Your task to perform on an android device: What's the weather? Image 0: 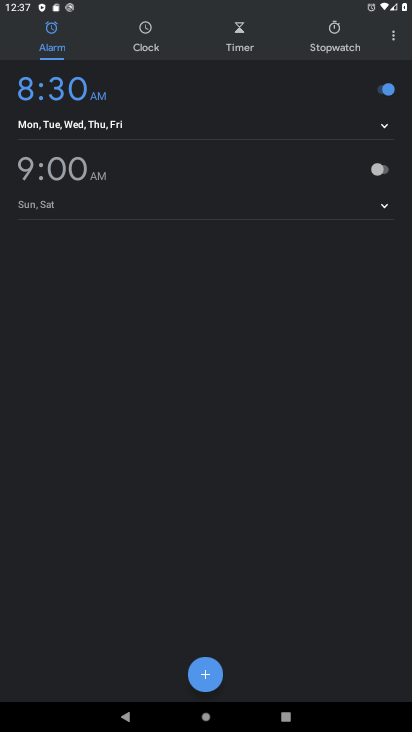
Step 0: press back button
Your task to perform on an android device: What's the weather? Image 1: 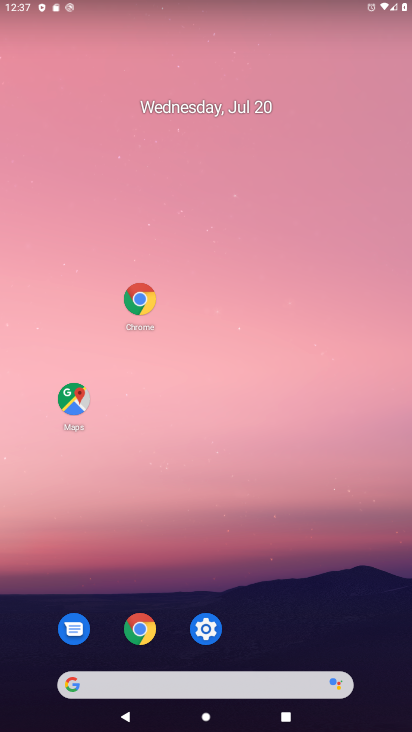
Step 1: drag from (278, 654) to (207, 210)
Your task to perform on an android device: What's the weather? Image 2: 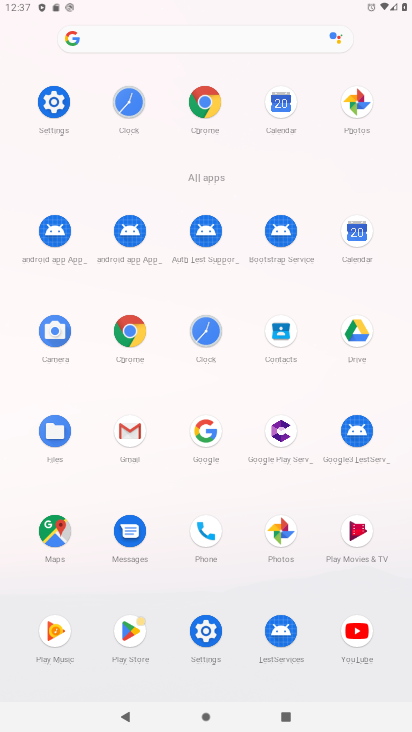
Step 2: click (349, 234)
Your task to perform on an android device: What's the weather? Image 3: 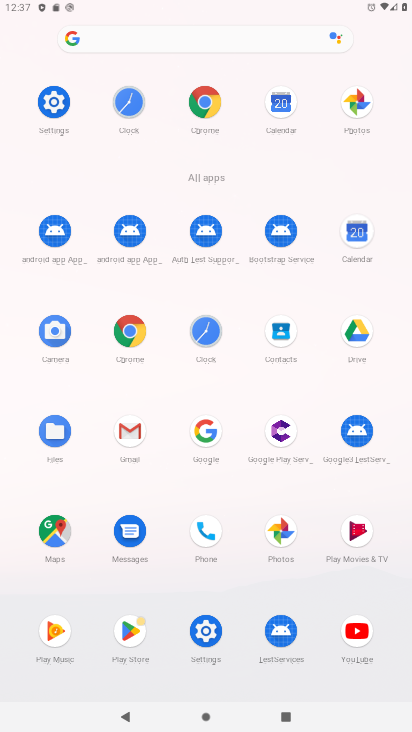
Step 3: click (351, 235)
Your task to perform on an android device: What's the weather? Image 4: 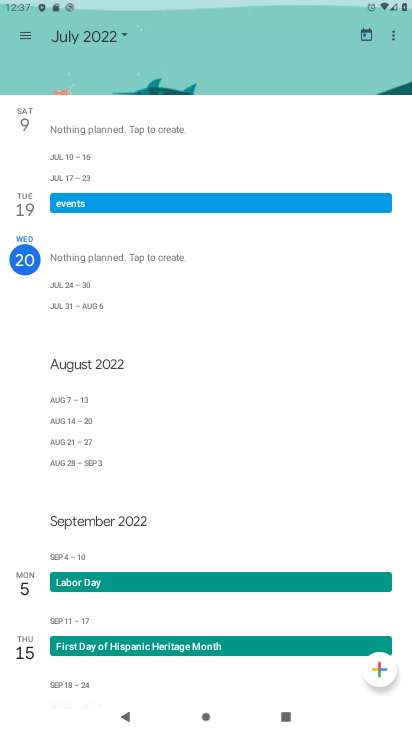
Step 4: click (353, 237)
Your task to perform on an android device: What's the weather? Image 5: 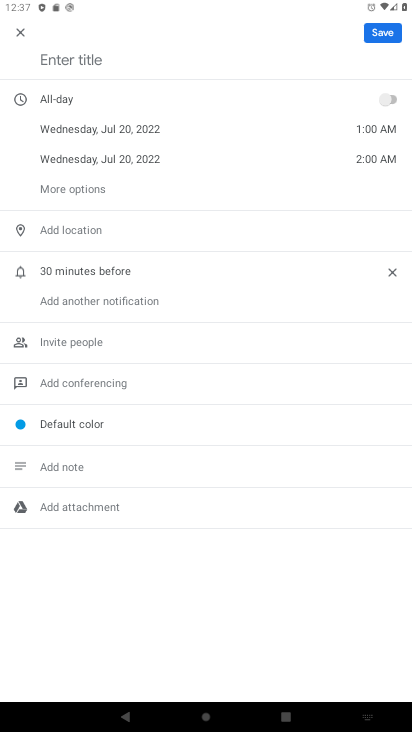
Step 5: click (19, 26)
Your task to perform on an android device: What's the weather? Image 6: 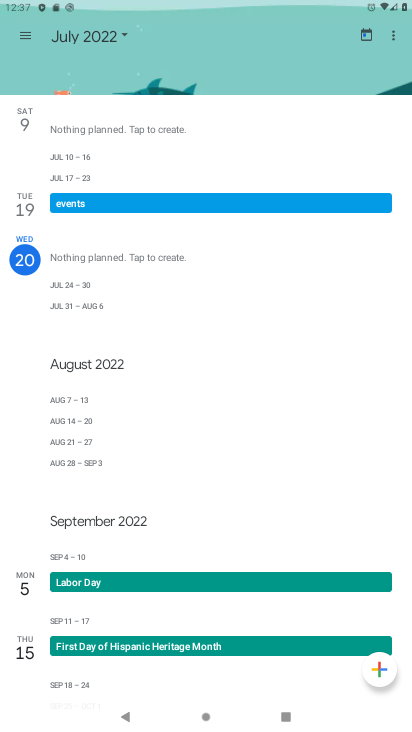
Step 6: press back button
Your task to perform on an android device: What's the weather? Image 7: 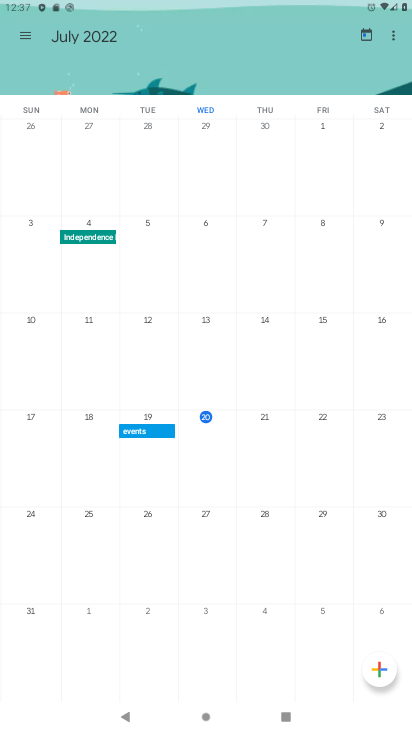
Step 7: press home button
Your task to perform on an android device: What's the weather? Image 8: 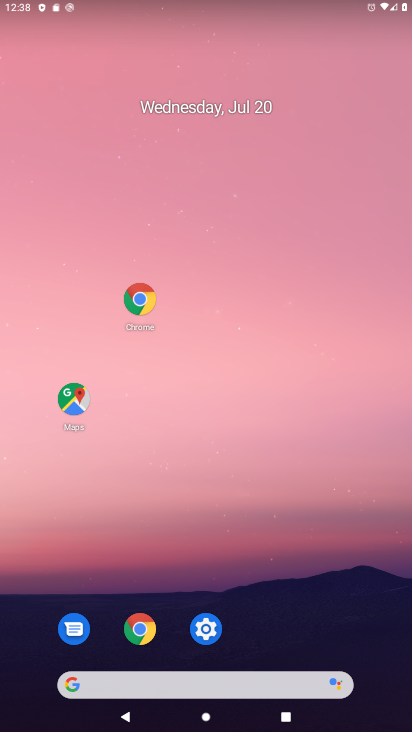
Step 8: drag from (188, 360) to (181, 56)
Your task to perform on an android device: What's the weather? Image 9: 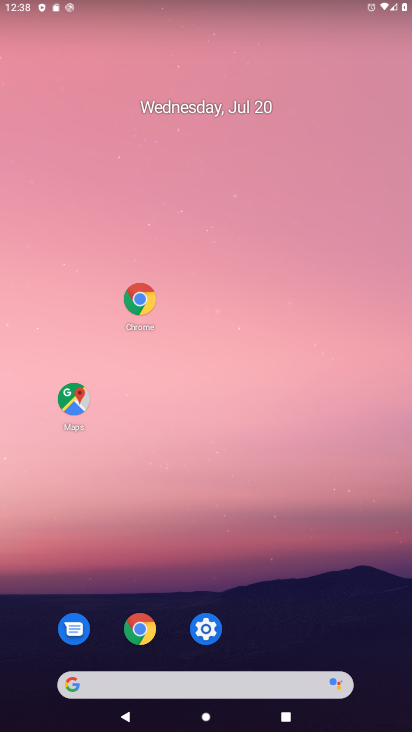
Step 9: drag from (200, 524) to (182, 87)
Your task to perform on an android device: What's the weather? Image 10: 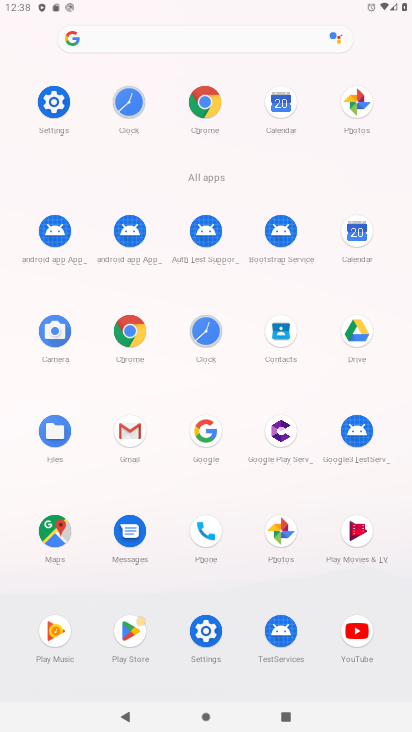
Step 10: click (196, 97)
Your task to perform on an android device: What's the weather? Image 11: 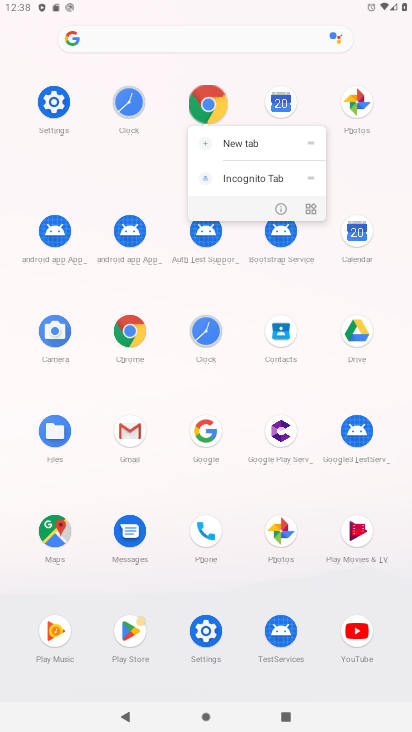
Step 11: click (207, 108)
Your task to perform on an android device: What's the weather? Image 12: 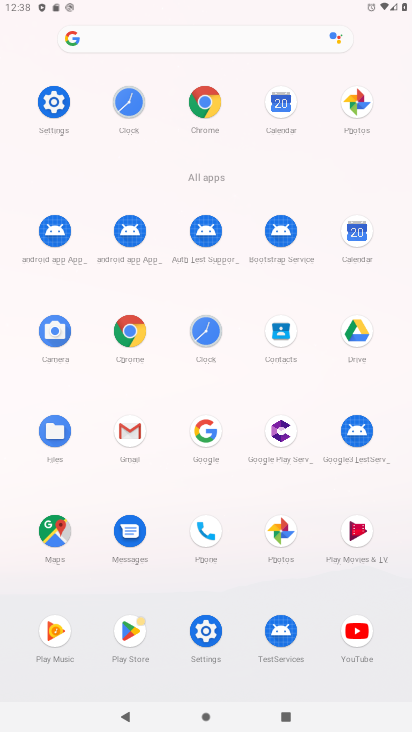
Step 12: click (203, 99)
Your task to perform on an android device: What's the weather? Image 13: 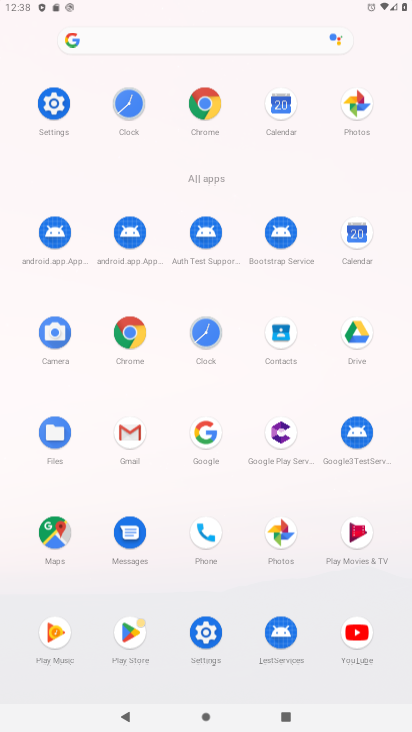
Step 13: click (204, 107)
Your task to perform on an android device: What's the weather? Image 14: 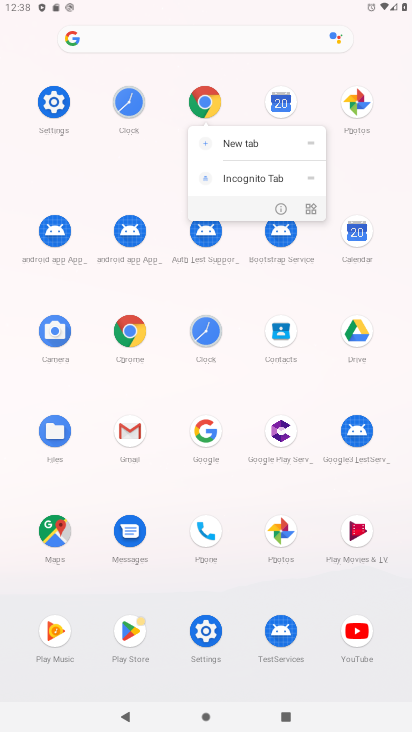
Step 14: click (196, 96)
Your task to perform on an android device: What's the weather? Image 15: 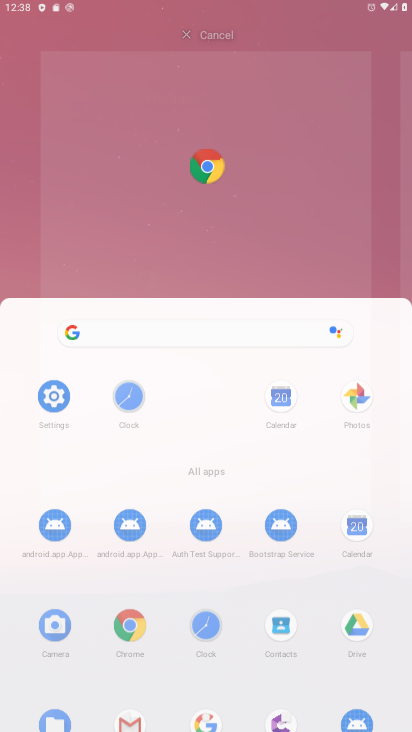
Step 15: click (214, 105)
Your task to perform on an android device: What's the weather? Image 16: 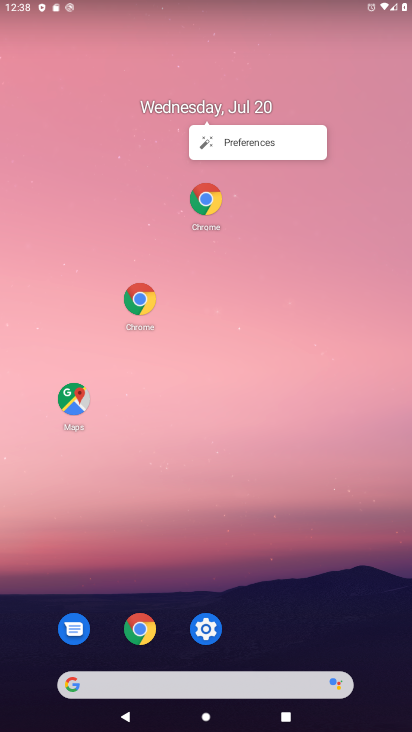
Step 16: drag from (213, 558) to (230, 93)
Your task to perform on an android device: What's the weather? Image 17: 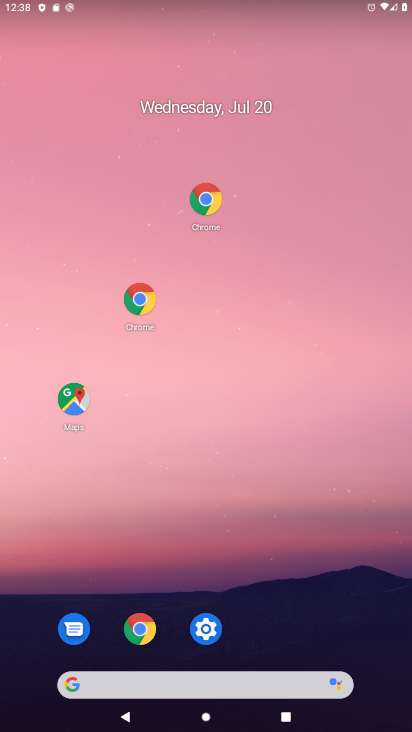
Step 17: drag from (230, 385) to (213, 89)
Your task to perform on an android device: What's the weather? Image 18: 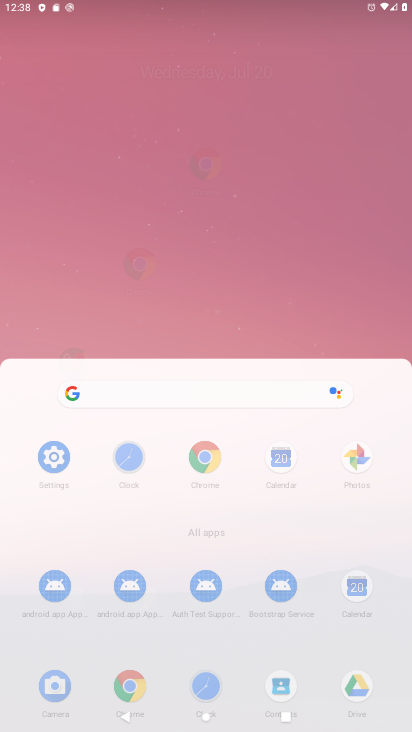
Step 18: drag from (231, 398) to (238, 72)
Your task to perform on an android device: What's the weather? Image 19: 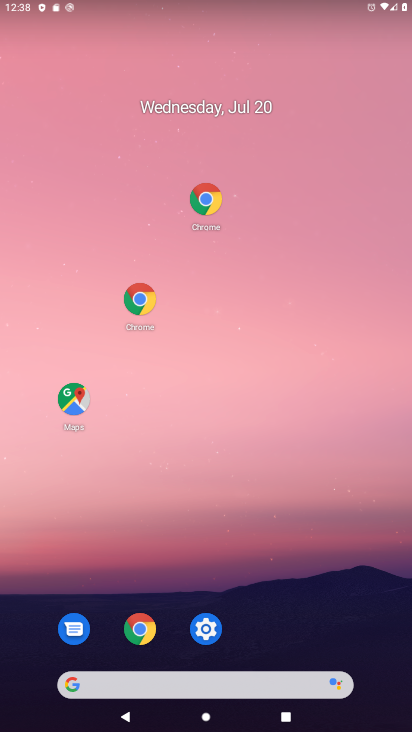
Step 19: drag from (214, 161) to (230, 38)
Your task to perform on an android device: What's the weather? Image 20: 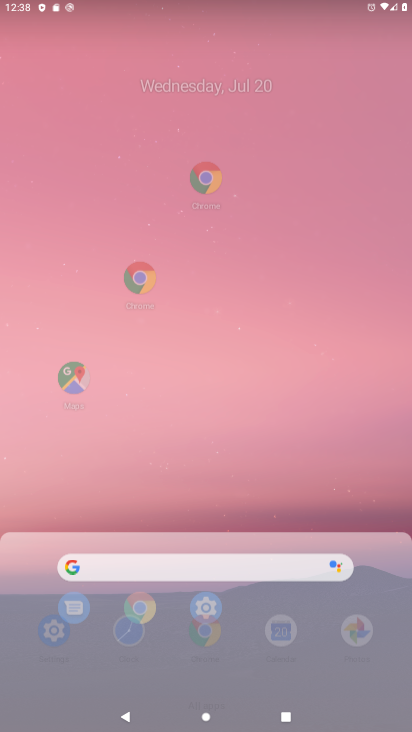
Step 20: drag from (217, 445) to (229, 39)
Your task to perform on an android device: What's the weather? Image 21: 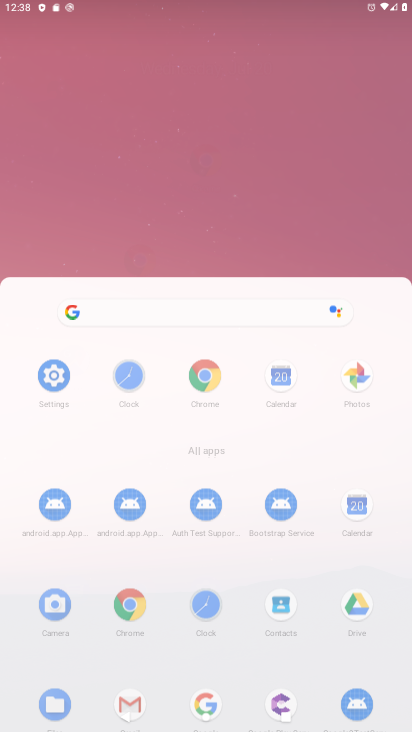
Step 21: drag from (208, 392) to (231, 28)
Your task to perform on an android device: What's the weather? Image 22: 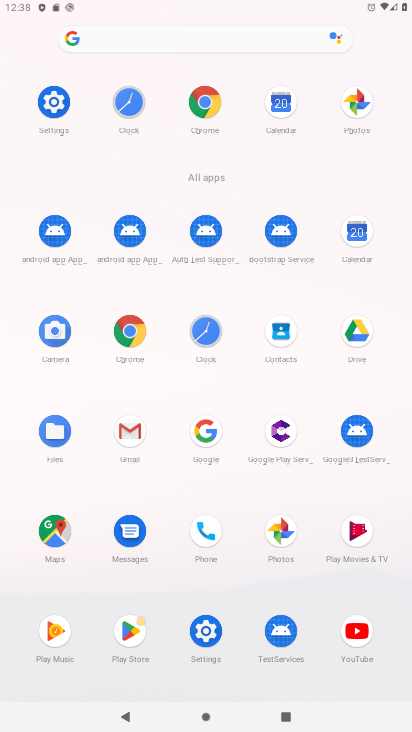
Step 22: drag from (129, 463) to (154, 2)
Your task to perform on an android device: What's the weather? Image 23: 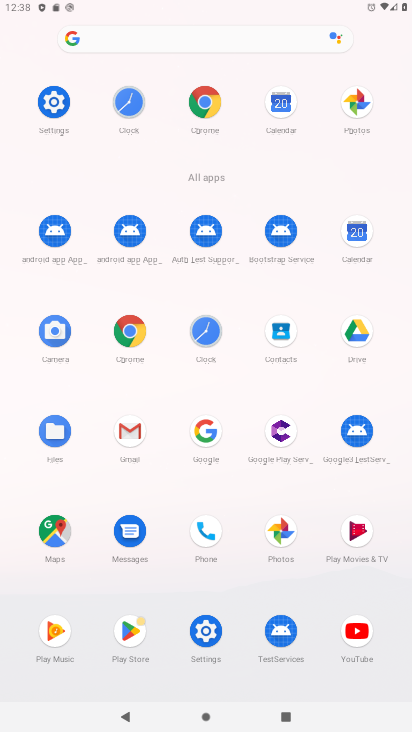
Step 23: click (198, 98)
Your task to perform on an android device: What's the weather? Image 24: 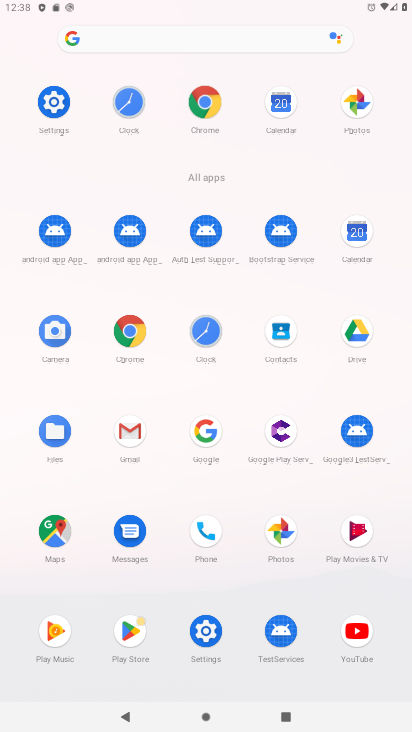
Step 24: click (202, 83)
Your task to perform on an android device: What's the weather? Image 25: 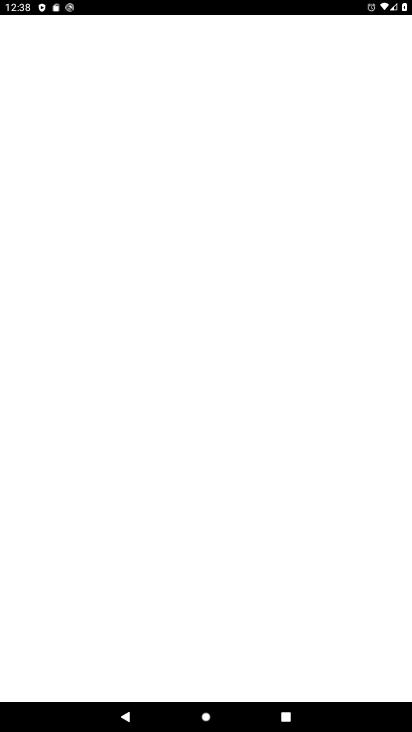
Step 25: click (209, 97)
Your task to perform on an android device: What's the weather? Image 26: 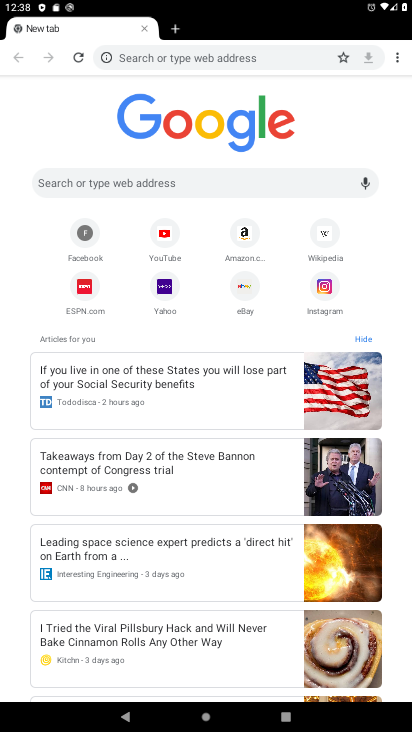
Step 26: click (136, 63)
Your task to perform on an android device: What's the weather? Image 27: 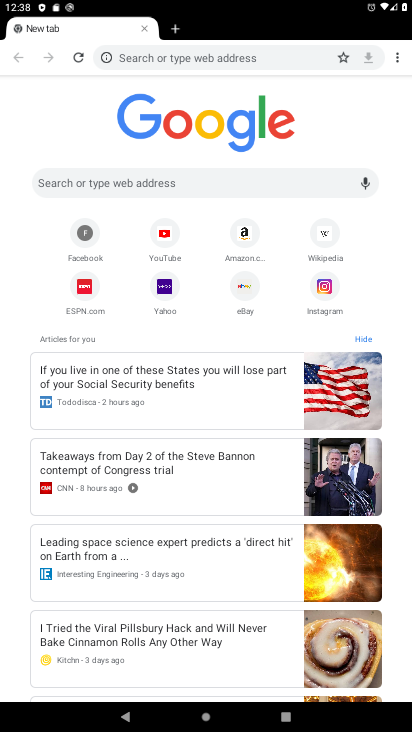
Step 27: click (134, 53)
Your task to perform on an android device: What's the weather? Image 28: 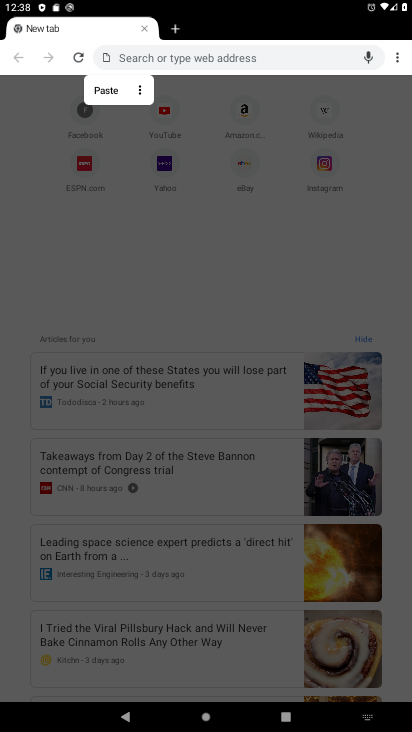
Step 28: type "weather today?"
Your task to perform on an android device: What's the weather? Image 29: 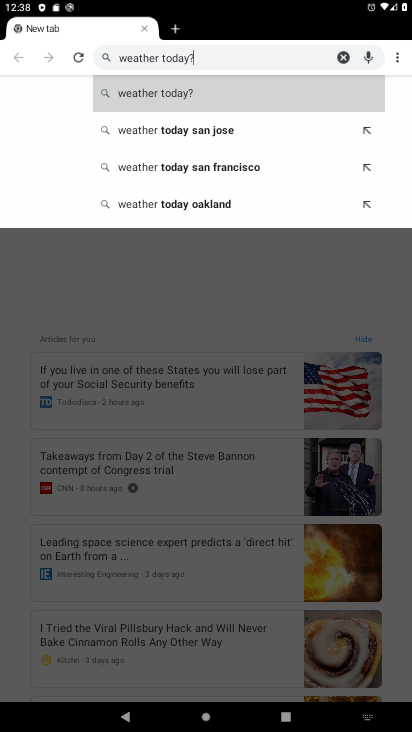
Step 29: click (194, 93)
Your task to perform on an android device: What's the weather? Image 30: 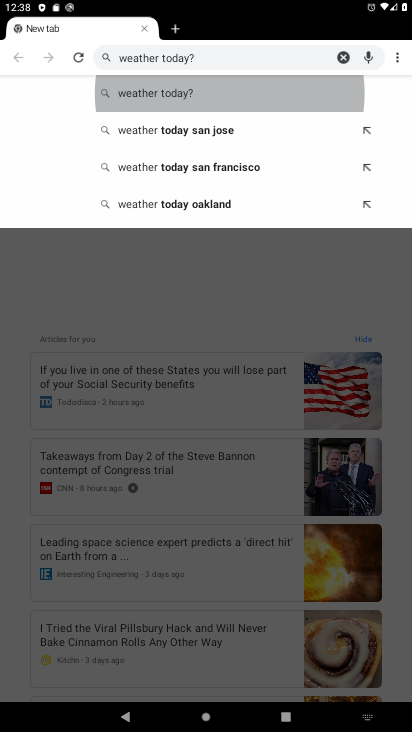
Step 30: click (194, 93)
Your task to perform on an android device: What's the weather? Image 31: 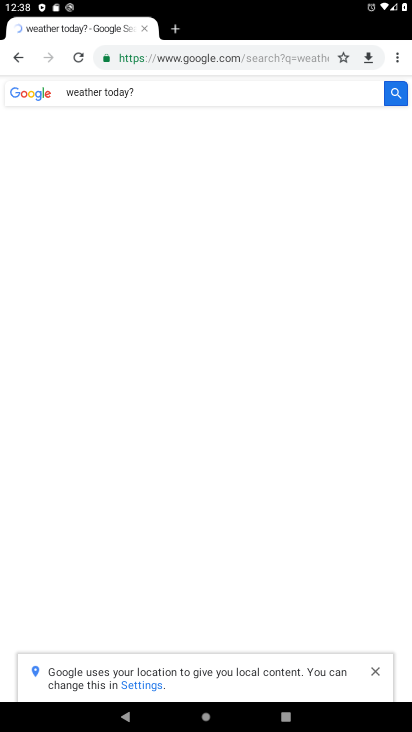
Step 31: task complete